Your task to perform on an android device: turn pop-ups off in chrome Image 0: 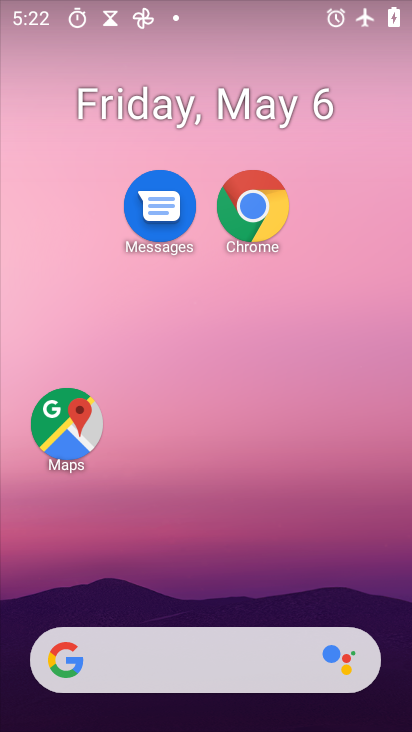
Step 0: click (245, 213)
Your task to perform on an android device: turn pop-ups off in chrome Image 1: 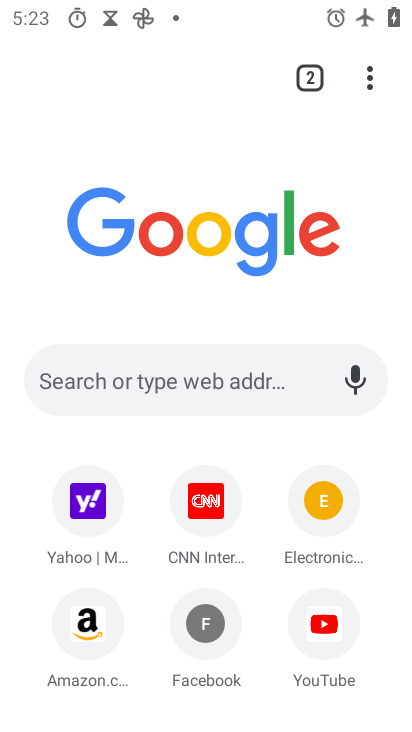
Step 1: click (373, 79)
Your task to perform on an android device: turn pop-ups off in chrome Image 2: 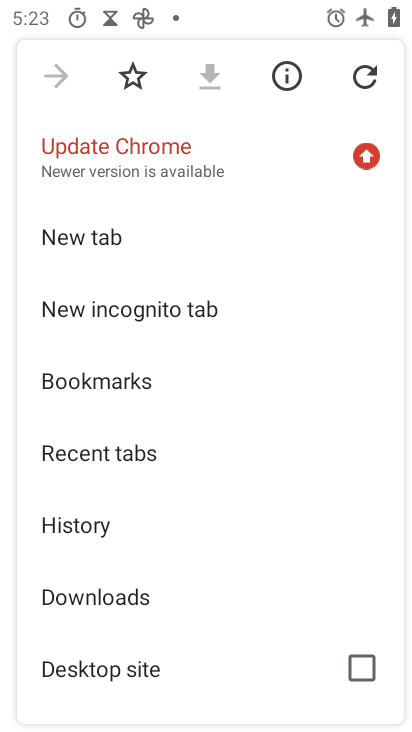
Step 2: drag from (116, 660) to (116, 376)
Your task to perform on an android device: turn pop-ups off in chrome Image 3: 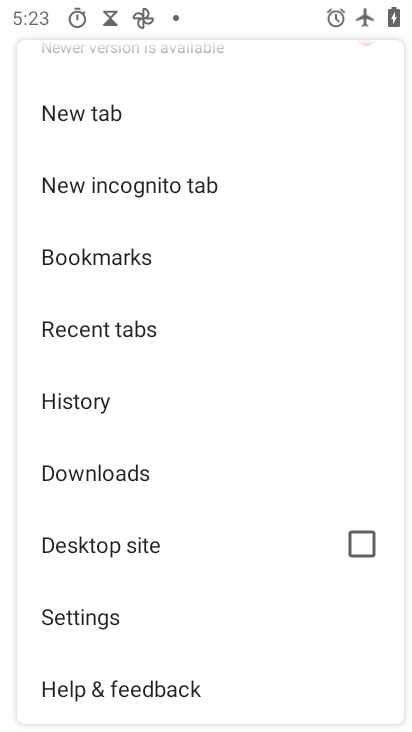
Step 3: click (103, 618)
Your task to perform on an android device: turn pop-ups off in chrome Image 4: 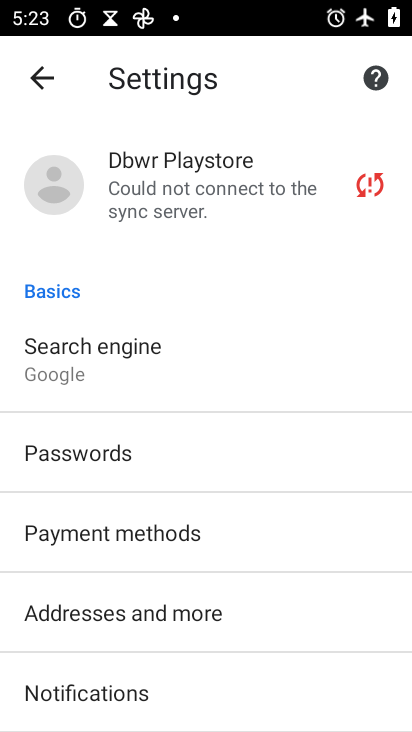
Step 4: drag from (114, 688) to (115, 352)
Your task to perform on an android device: turn pop-ups off in chrome Image 5: 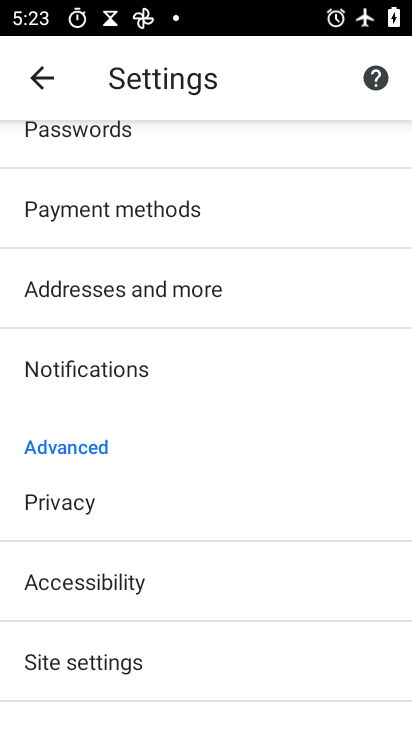
Step 5: drag from (70, 693) to (74, 379)
Your task to perform on an android device: turn pop-ups off in chrome Image 6: 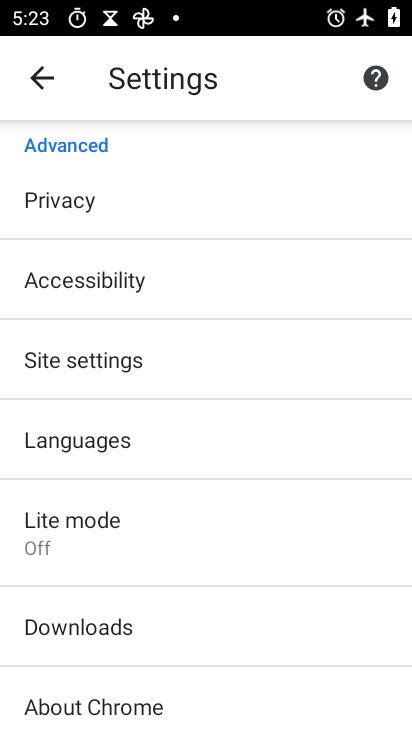
Step 6: click (33, 360)
Your task to perform on an android device: turn pop-ups off in chrome Image 7: 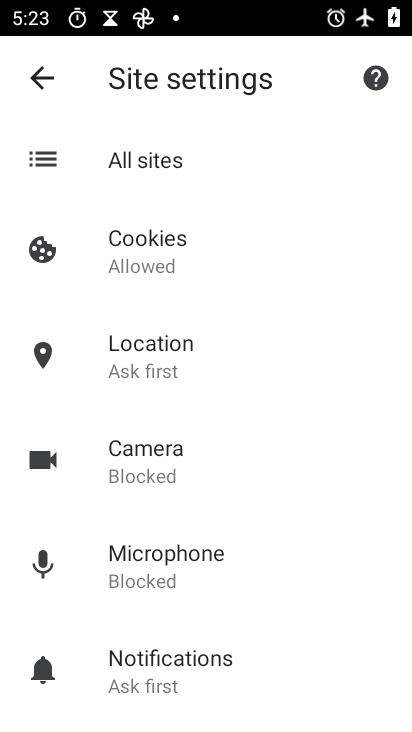
Step 7: drag from (142, 700) to (139, 357)
Your task to perform on an android device: turn pop-ups off in chrome Image 8: 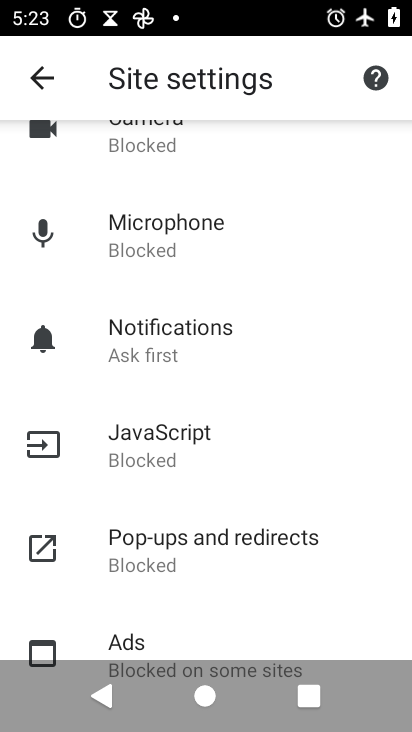
Step 8: click (119, 566)
Your task to perform on an android device: turn pop-ups off in chrome Image 9: 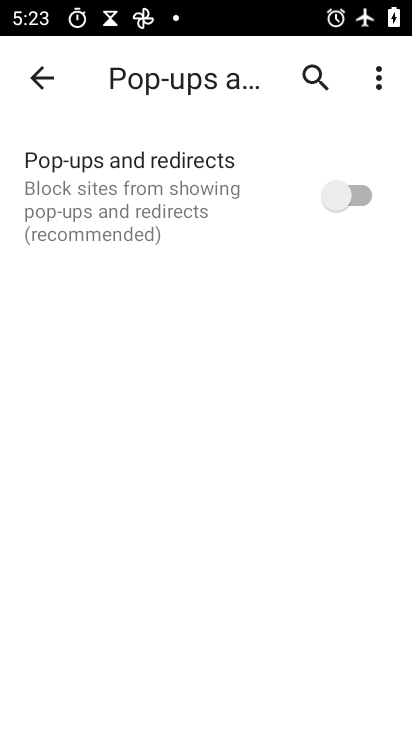
Step 9: task complete